Your task to perform on an android device: read, delete, or share a saved page in the chrome app Image 0: 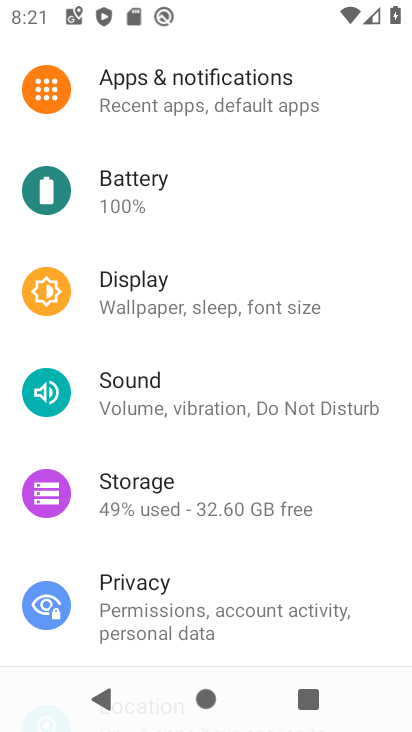
Step 0: press home button
Your task to perform on an android device: read, delete, or share a saved page in the chrome app Image 1: 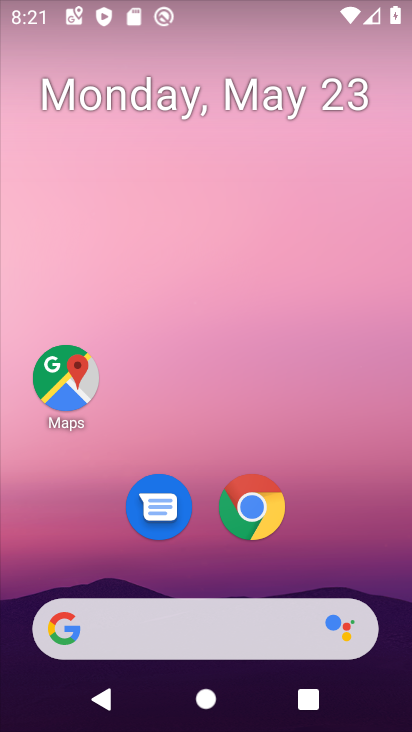
Step 1: drag from (349, 481) to (303, 71)
Your task to perform on an android device: read, delete, or share a saved page in the chrome app Image 2: 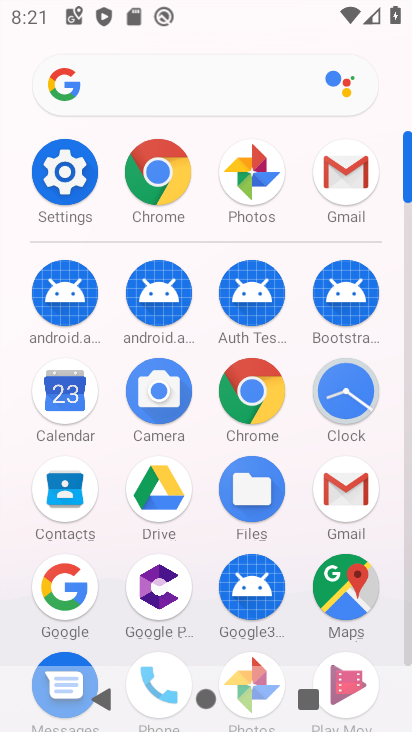
Step 2: click (260, 400)
Your task to perform on an android device: read, delete, or share a saved page in the chrome app Image 3: 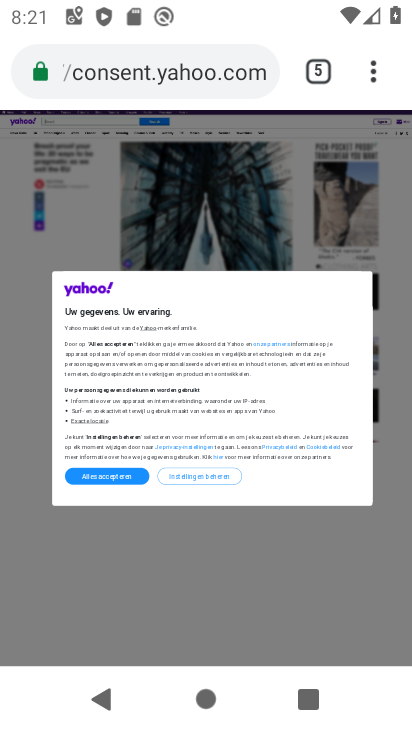
Step 3: drag from (373, 79) to (218, 277)
Your task to perform on an android device: read, delete, or share a saved page in the chrome app Image 4: 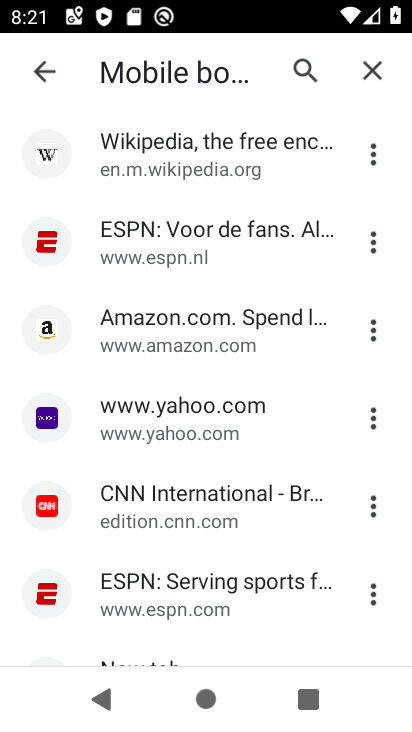
Step 4: click (379, 161)
Your task to perform on an android device: read, delete, or share a saved page in the chrome app Image 5: 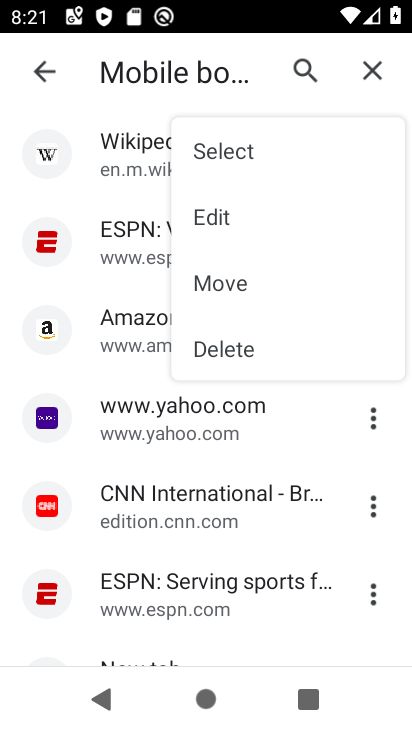
Step 5: click (230, 336)
Your task to perform on an android device: read, delete, or share a saved page in the chrome app Image 6: 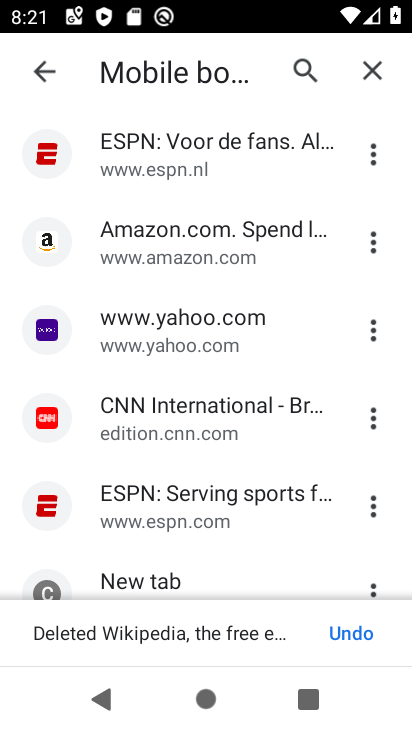
Step 6: task complete